Your task to perform on an android device: make emails show in primary in the gmail app Image 0: 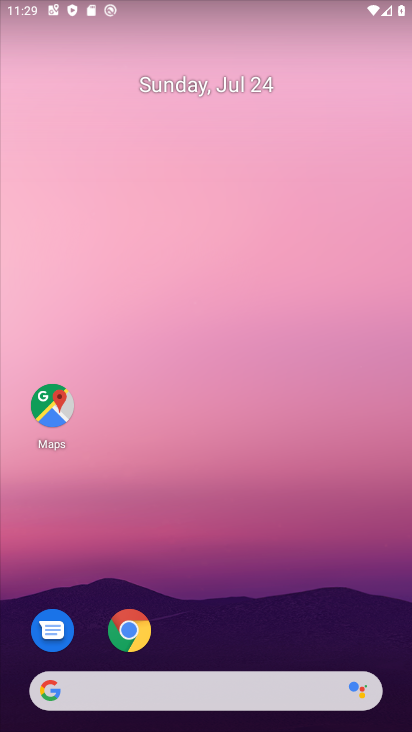
Step 0: drag from (186, 610) to (186, 164)
Your task to perform on an android device: make emails show in primary in the gmail app Image 1: 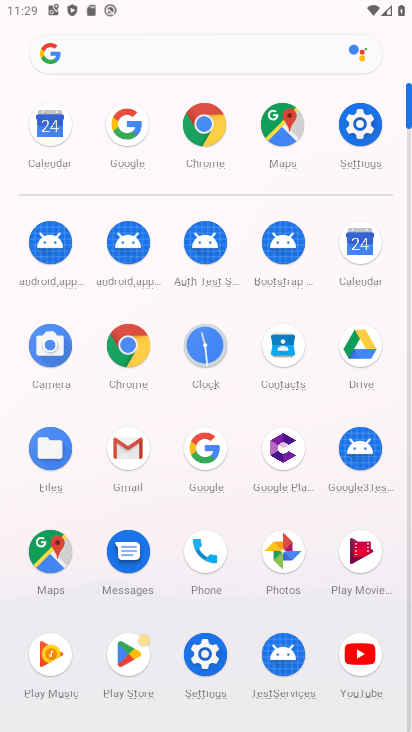
Step 1: click (121, 465)
Your task to perform on an android device: make emails show in primary in the gmail app Image 2: 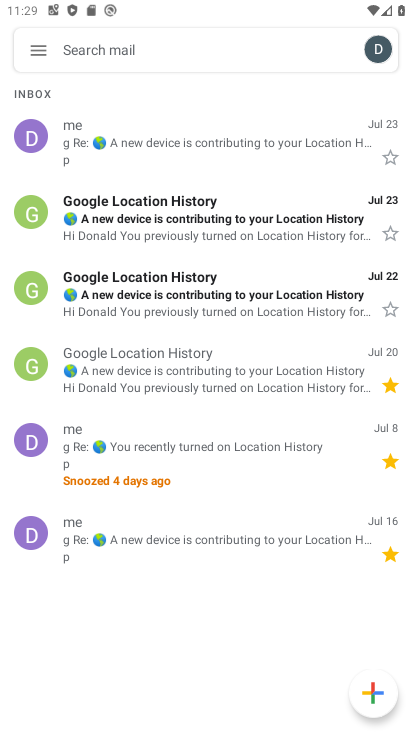
Step 2: click (41, 55)
Your task to perform on an android device: make emails show in primary in the gmail app Image 3: 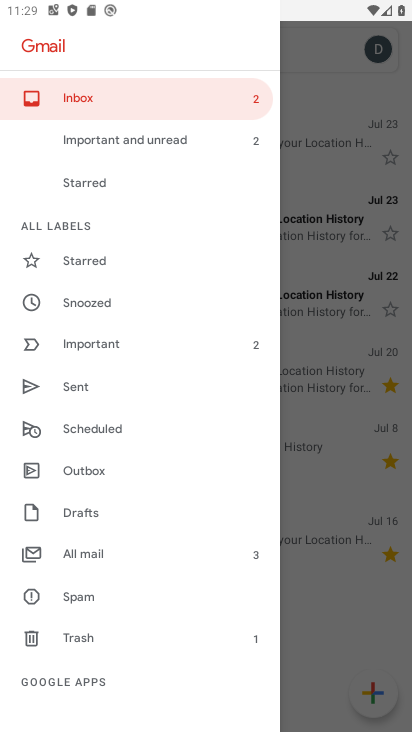
Step 3: drag from (117, 653) to (124, 446)
Your task to perform on an android device: make emails show in primary in the gmail app Image 4: 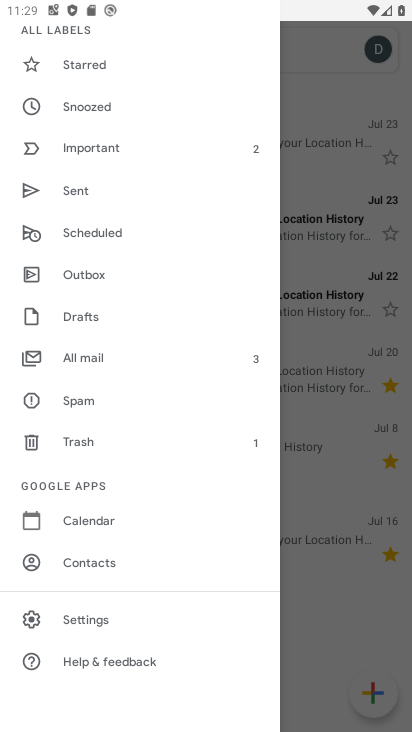
Step 4: click (74, 633)
Your task to perform on an android device: make emails show in primary in the gmail app Image 5: 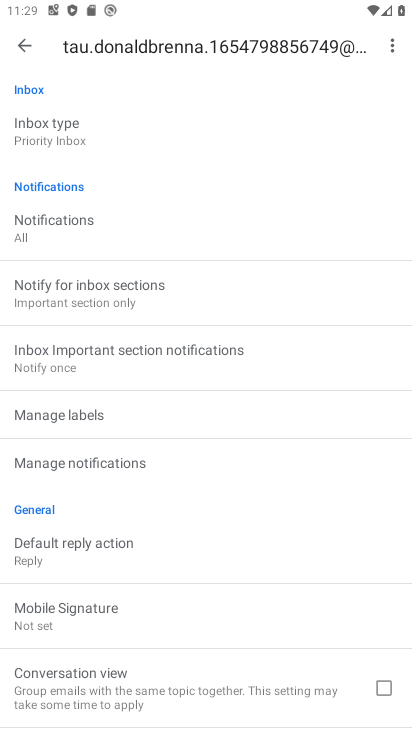
Step 5: task complete